Your task to perform on an android device: check google app version Image 0: 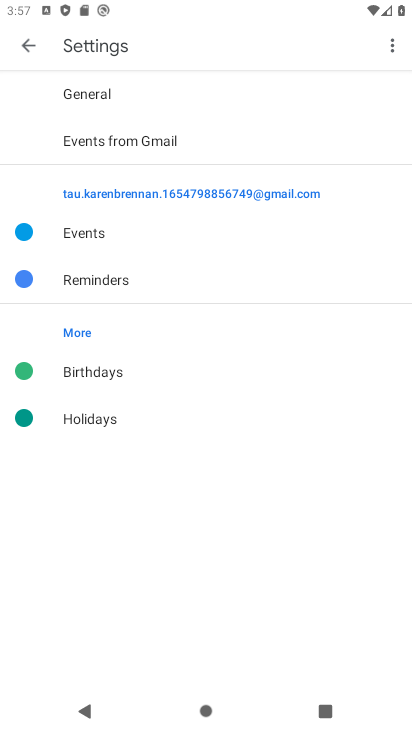
Step 0: press home button
Your task to perform on an android device: check google app version Image 1: 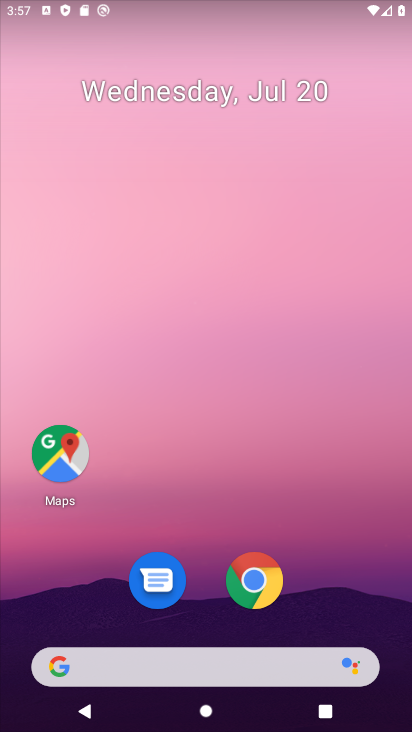
Step 1: click (173, 658)
Your task to perform on an android device: check google app version Image 2: 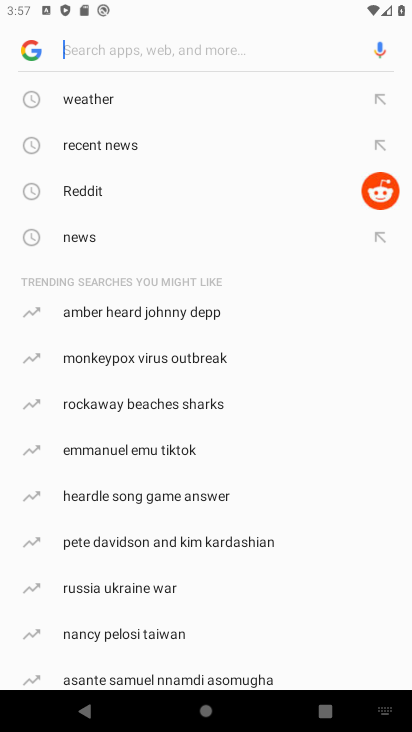
Step 2: click (41, 57)
Your task to perform on an android device: check google app version Image 3: 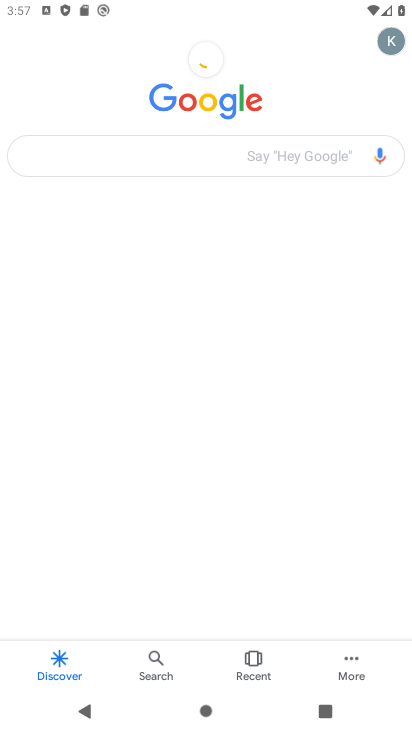
Step 3: click (364, 665)
Your task to perform on an android device: check google app version Image 4: 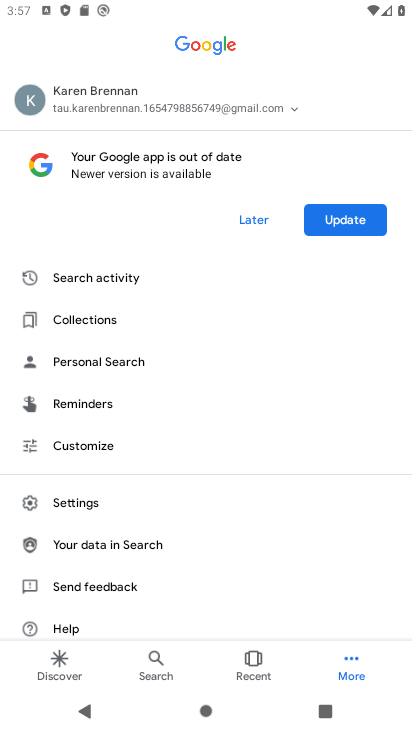
Step 4: click (73, 499)
Your task to perform on an android device: check google app version Image 5: 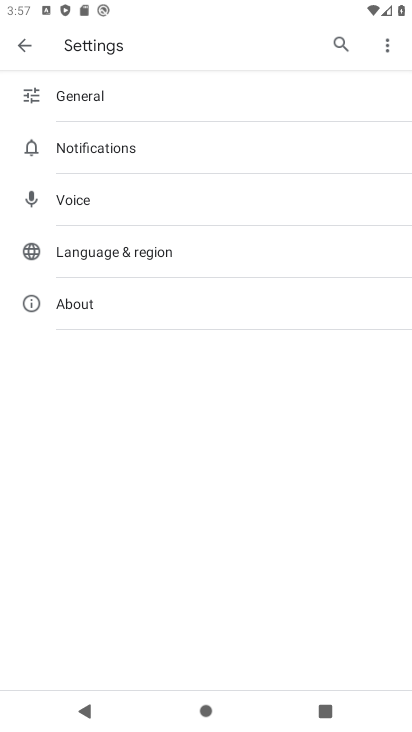
Step 5: click (87, 316)
Your task to perform on an android device: check google app version Image 6: 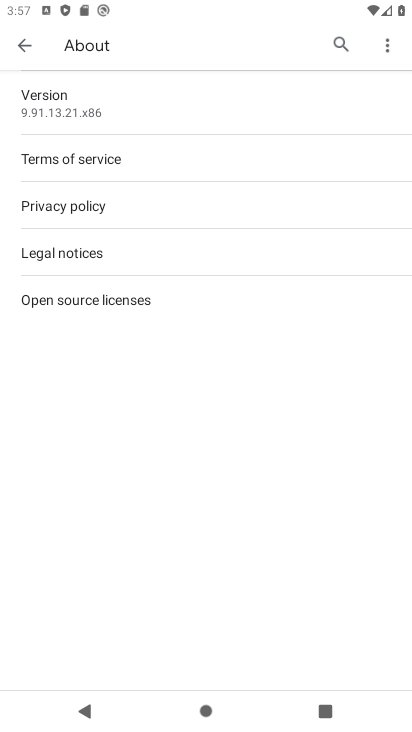
Step 6: task complete